Your task to perform on an android device: Add "logitech g933" to the cart on bestbuy.com Image 0: 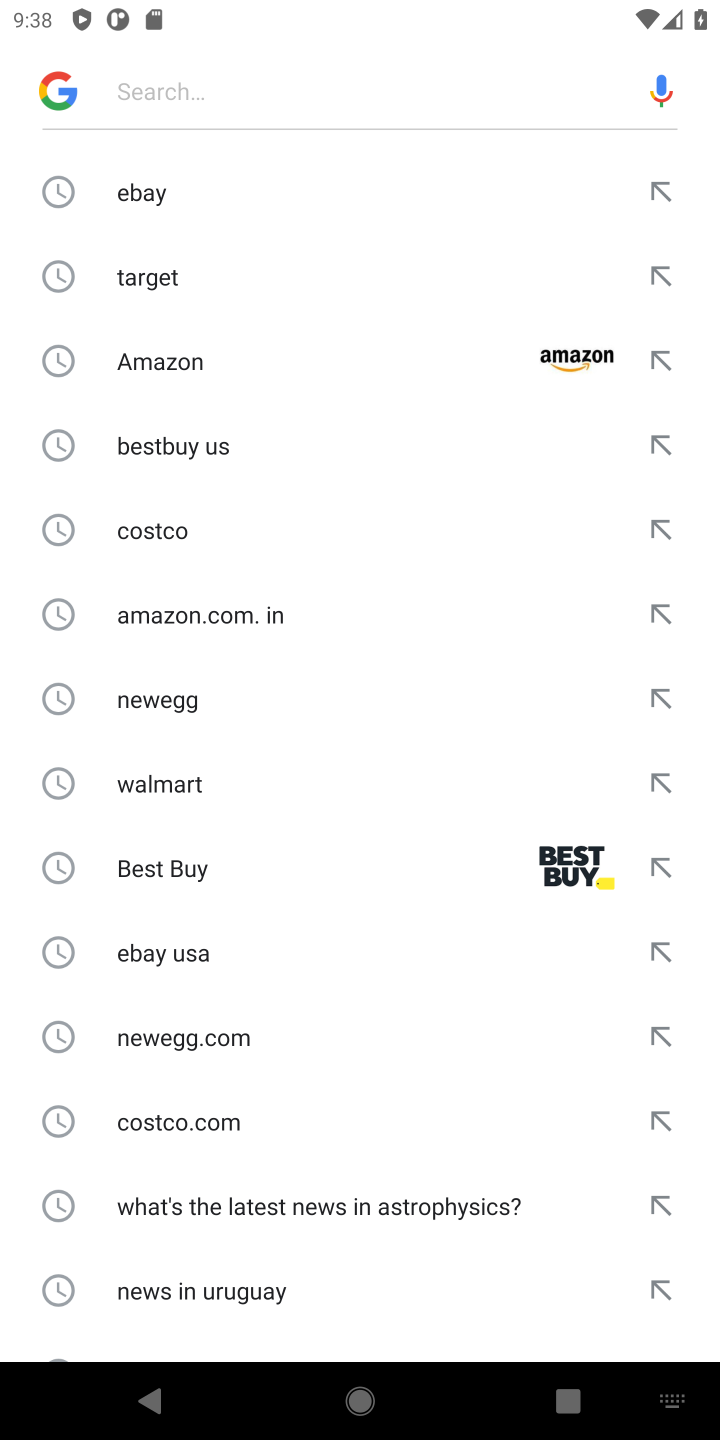
Step 0: type "bestbuy.com"
Your task to perform on an android device: Add "logitech g933" to the cart on bestbuy.com Image 1: 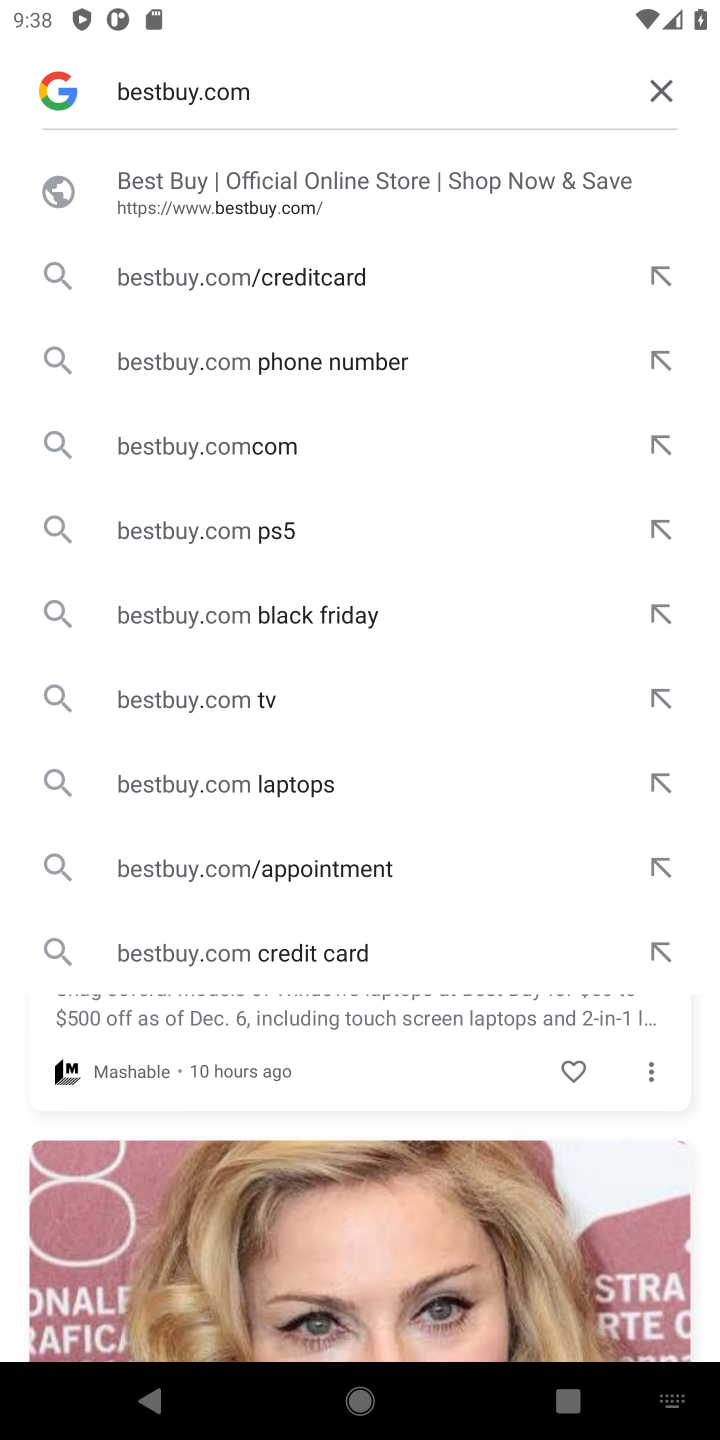
Step 1: click (175, 98)
Your task to perform on an android device: Add "logitech g933" to the cart on bestbuy.com Image 2: 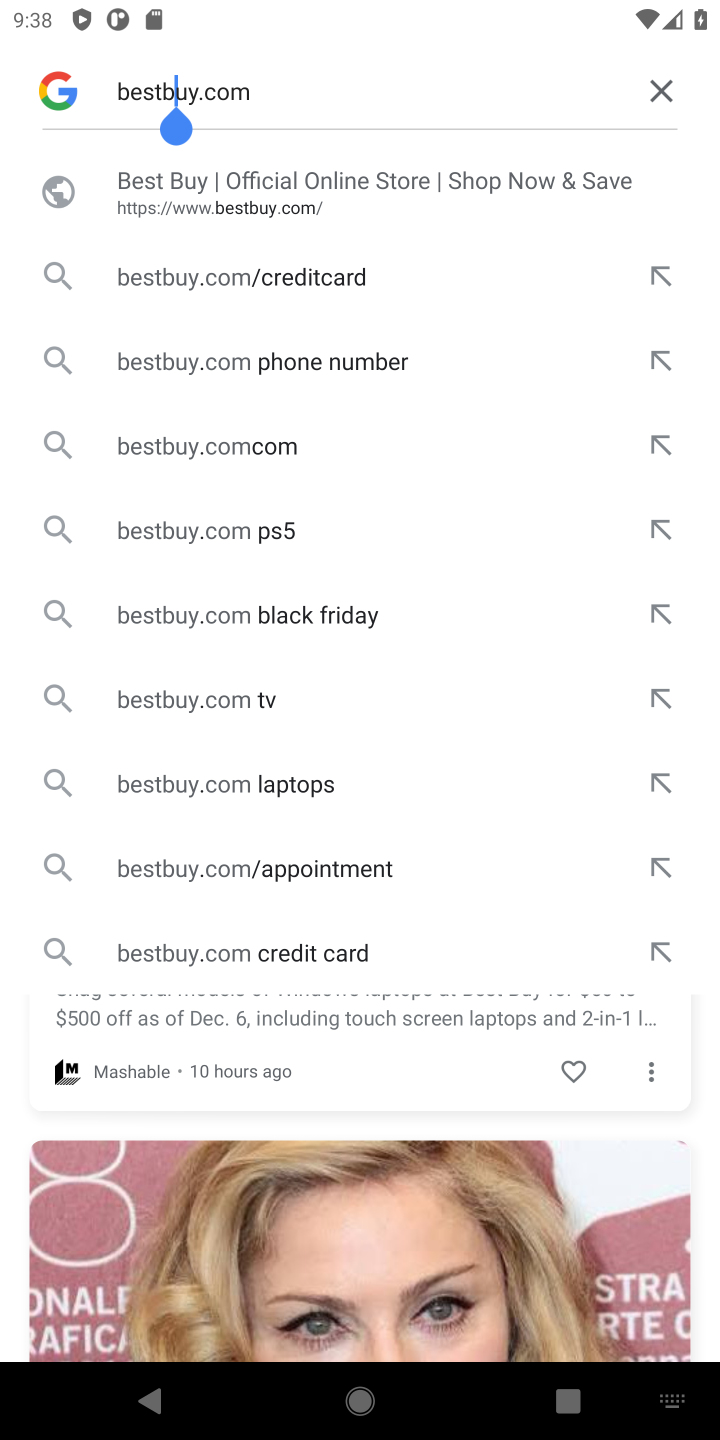
Step 2: click (159, 237)
Your task to perform on an android device: Add "logitech g933" to the cart on bestbuy.com Image 3: 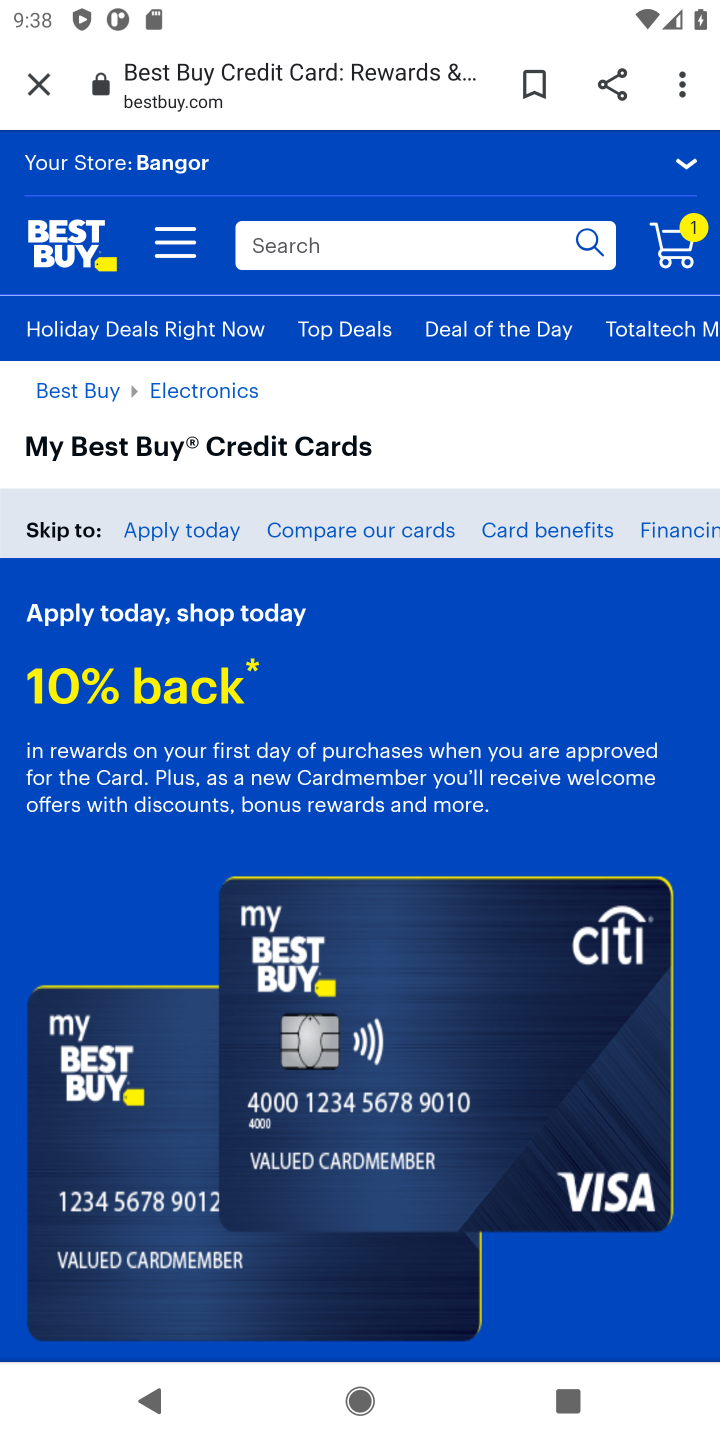
Step 3: click (324, 247)
Your task to perform on an android device: Add "logitech g933" to the cart on bestbuy.com Image 4: 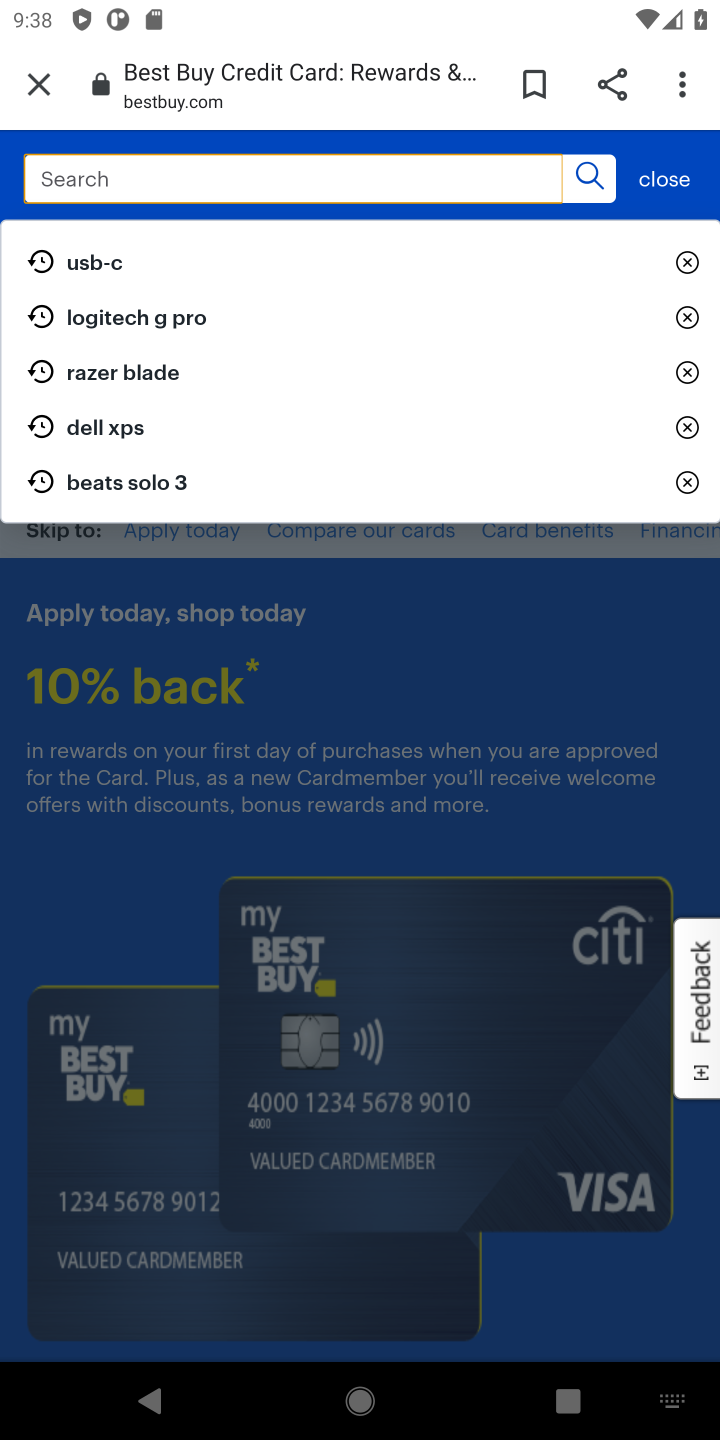
Step 4: type "logitech g933"
Your task to perform on an android device: Add "logitech g933" to the cart on bestbuy.com Image 5: 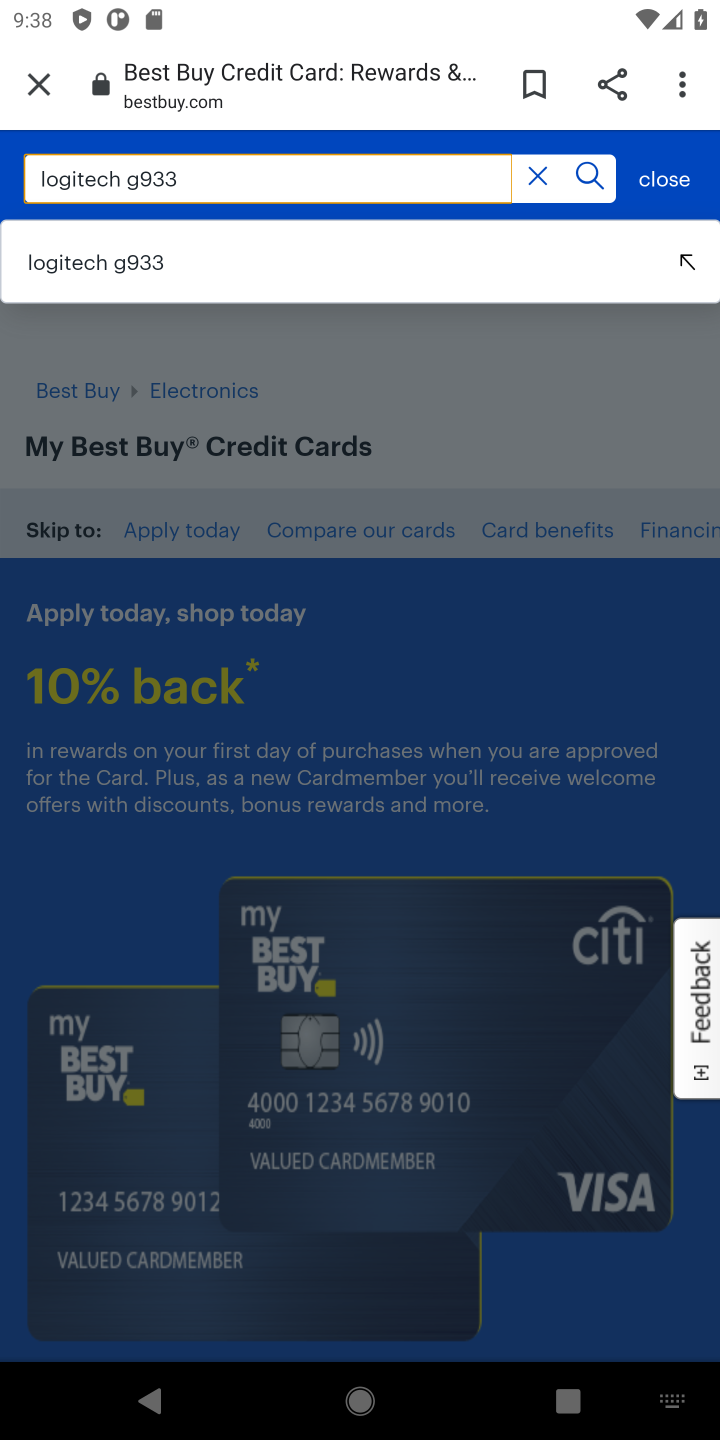
Step 5: click (145, 260)
Your task to perform on an android device: Add "logitech g933" to the cart on bestbuy.com Image 6: 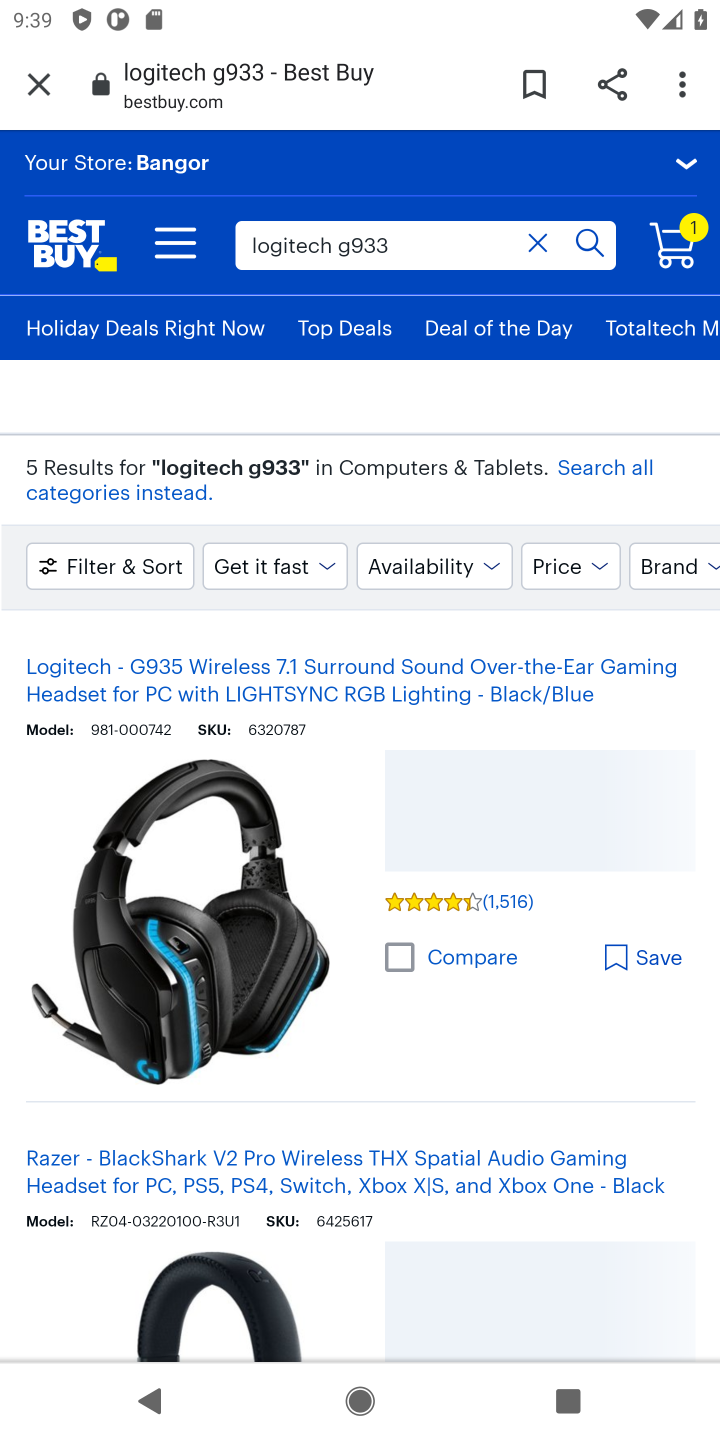
Step 6: task complete